Your task to perform on an android device: Open internet settings Image 0: 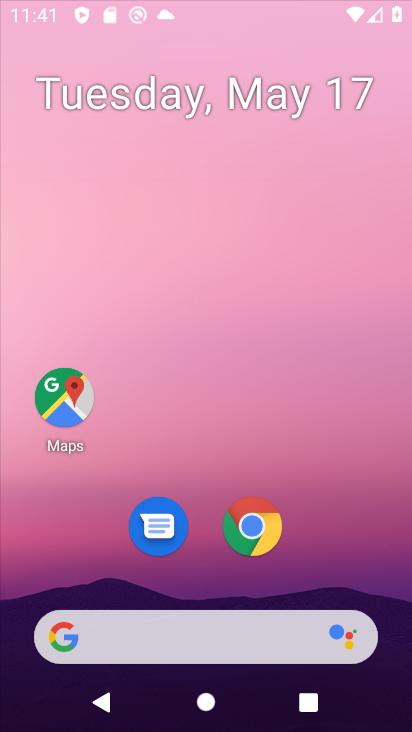
Step 0: click (70, 401)
Your task to perform on an android device: Open internet settings Image 1: 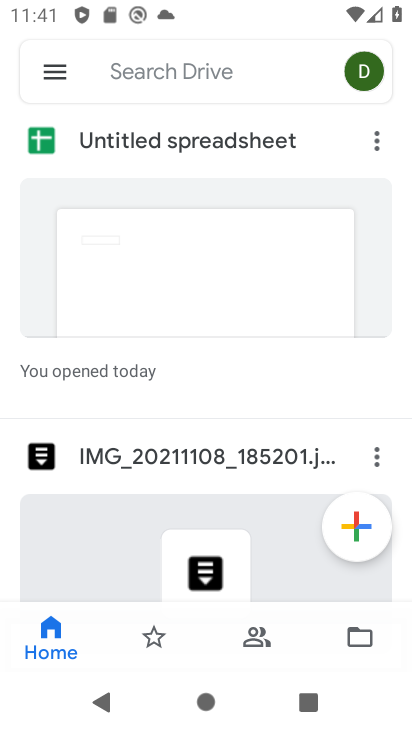
Step 1: press home button
Your task to perform on an android device: Open internet settings Image 2: 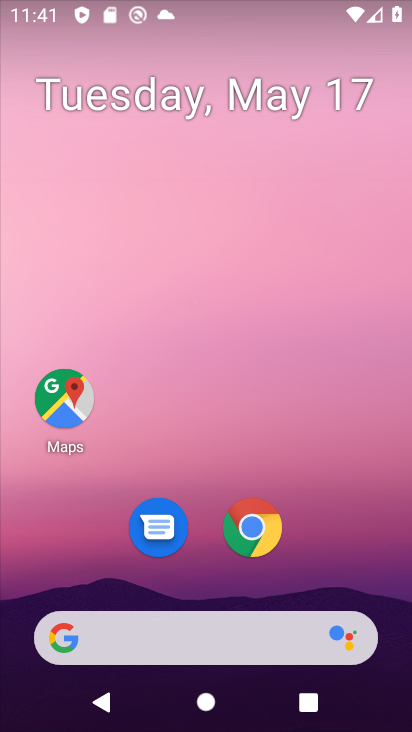
Step 2: drag from (325, 545) to (341, 53)
Your task to perform on an android device: Open internet settings Image 3: 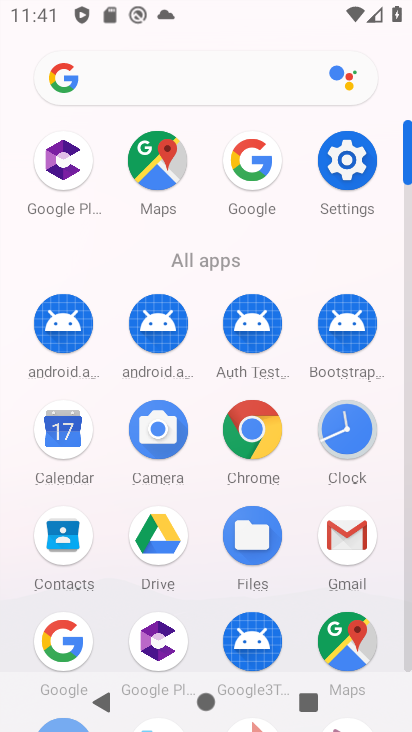
Step 3: click (336, 165)
Your task to perform on an android device: Open internet settings Image 4: 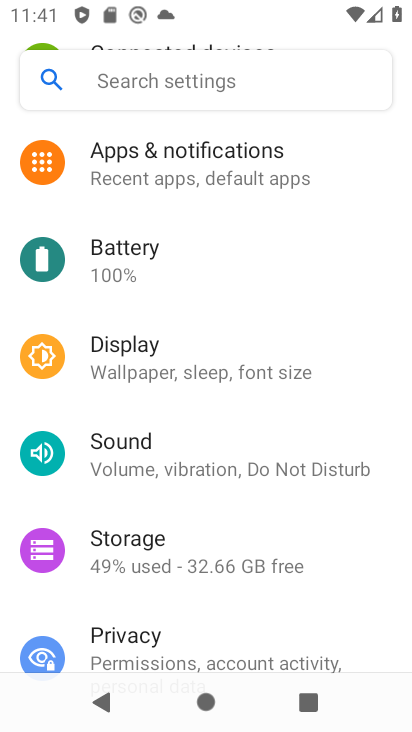
Step 4: drag from (246, 239) to (217, 433)
Your task to perform on an android device: Open internet settings Image 5: 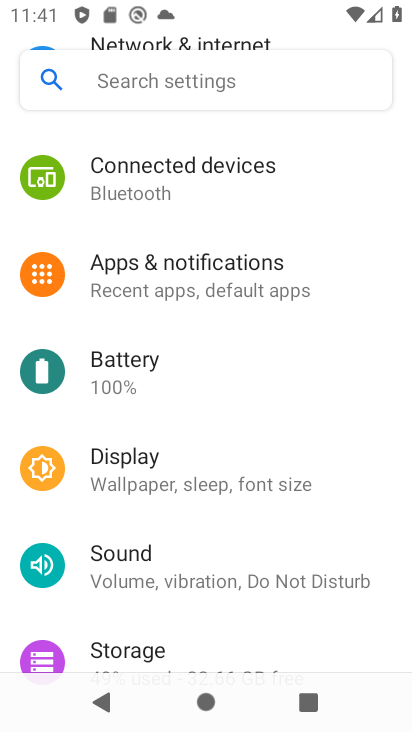
Step 5: drag from (184, 196) to (186, 398)
Your task to perform on an android device: Open internet settings Image 6: 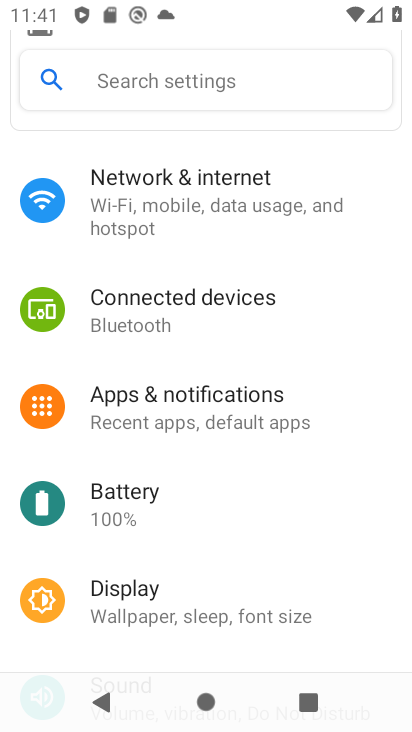
Step 6: click (179, 225)
Your task to perform on an android device: Open internet settings Image 7: 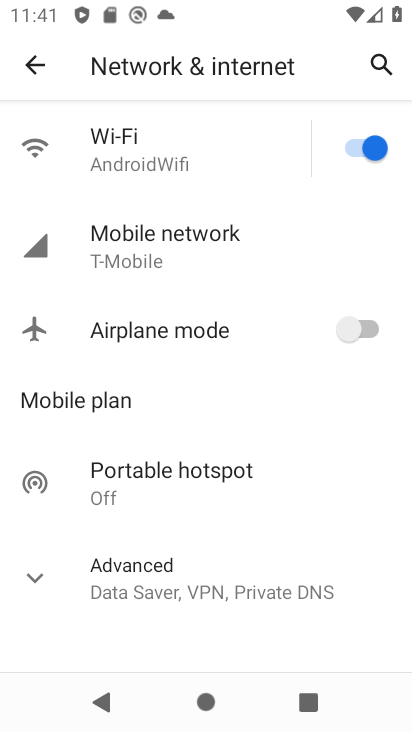
Step 7: task complete